Your task to perform on an android device: Check the weather Image 0: 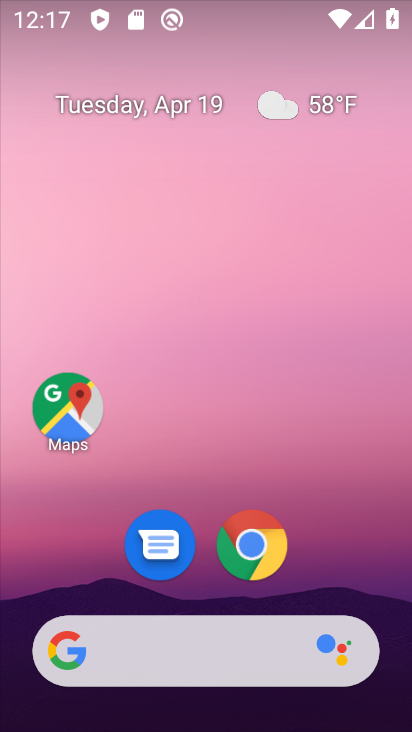
Step 0: click (311, 105)
Your task to perform on an android device: Check the weather Image 1: 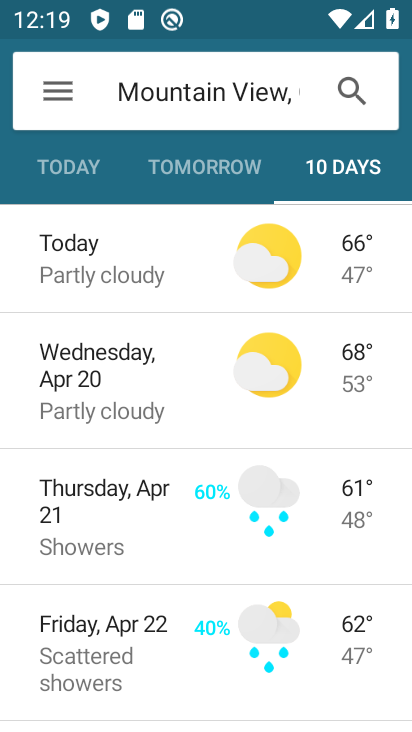
Step 1: click (83, 170)
Your task to perform on an android device: Check the weather Image 2: 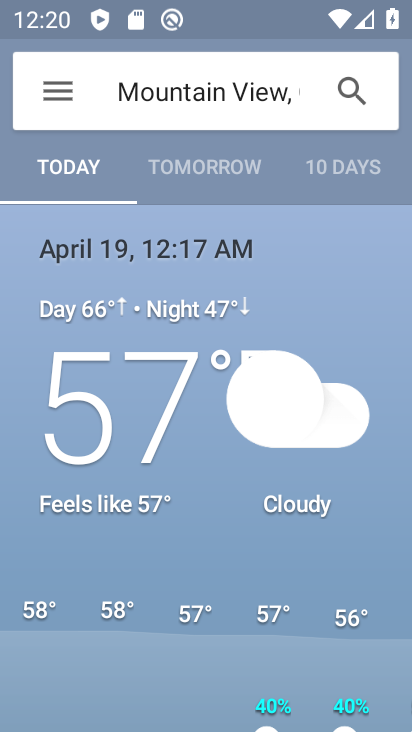
Step 2: task complete